Your task to perform on an android device: Go to Reddit.com Image 0: 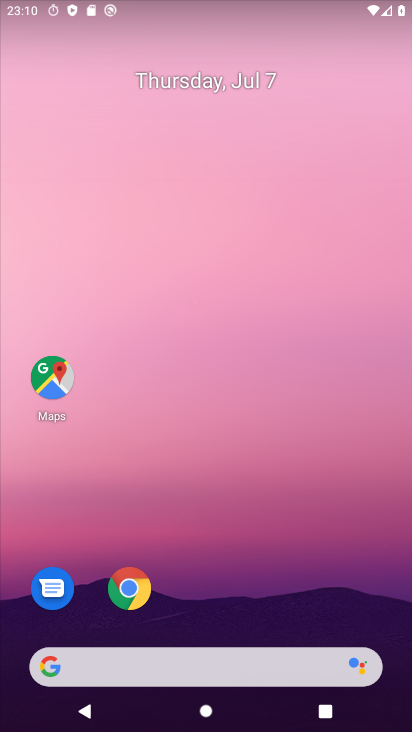
Step 0: drag from (260, 585) to (303, 134)
Your task to perform on an android device: Go to Reddit.com Image 1: 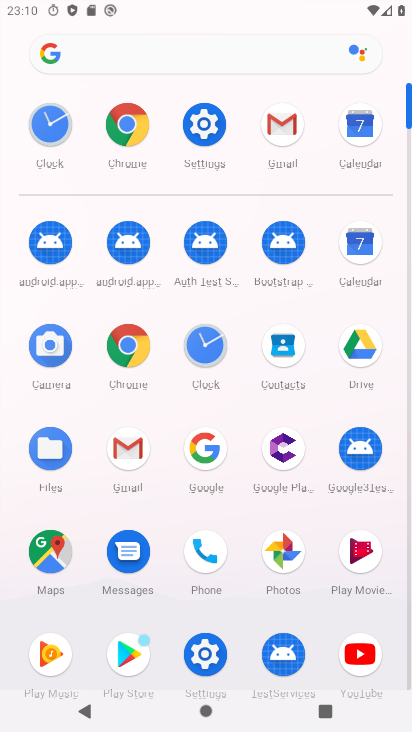
Step 1: click (127, 346)
Your task to perform on an android device: Go to Reddit.com Image 2: 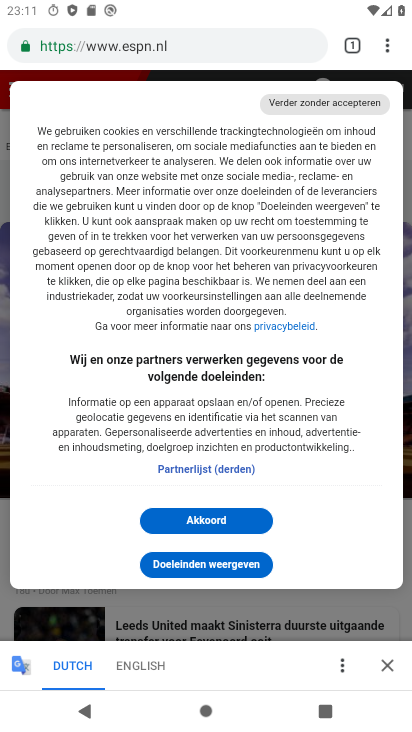
Step 2: click (212, 50)
Your task to perform on an android device: Go to Reddit.com Image 3: 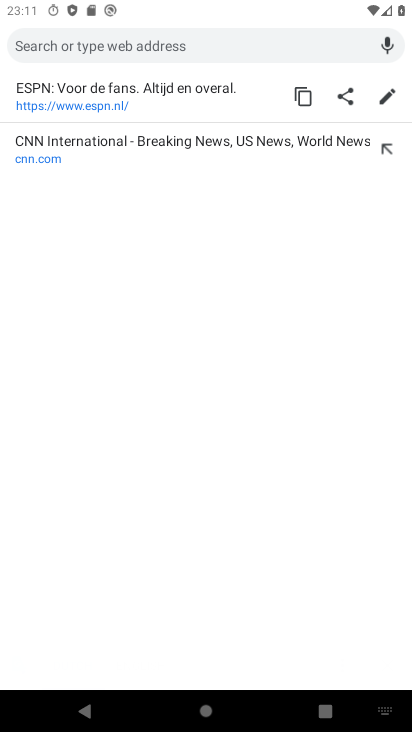
Step 3: type "reddit.com"
Your task to perform on an android device: Go to Reddit.com Image 4: 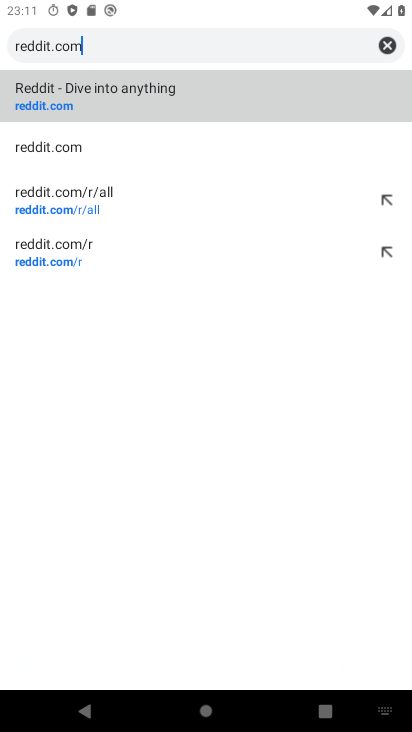
Step 4: click (50, 99)
Your task to perform on an android device: Go to Reddit.com Image 5: 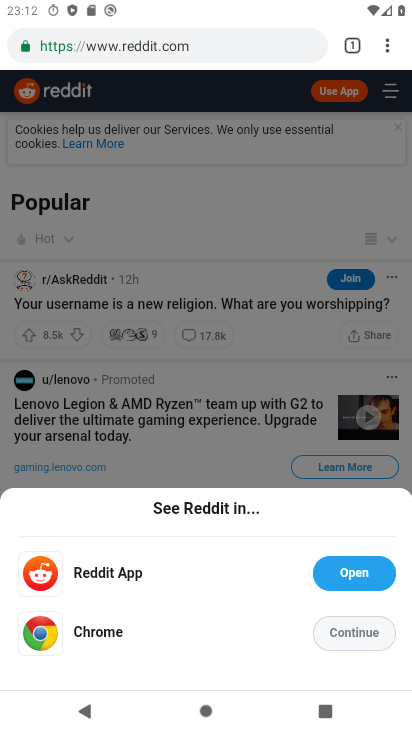
Step 5: task complete